Your task to perform on an android device: When is my next meeting? Image 0: 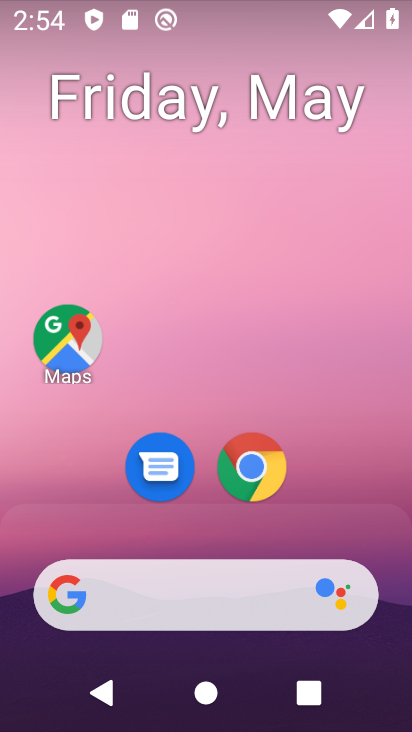
Step 0: drag from (343, 523) to (255, 35)
Your task to perform on an android device: When is my next meeting? Image 1: 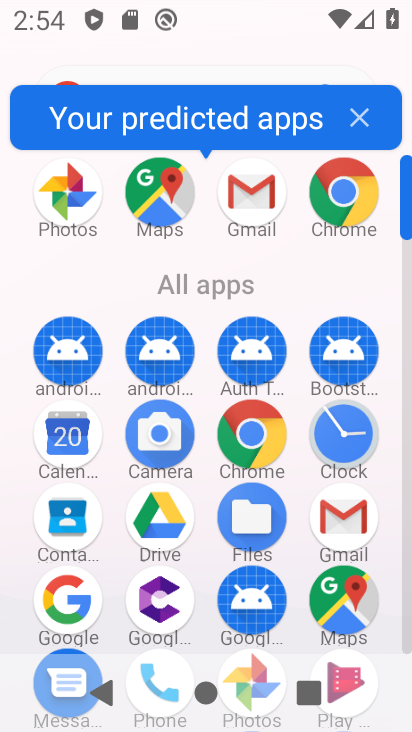
Step 1: click (69, 441)
Your task to perform on an android device: When is my next meeting? Image 2: 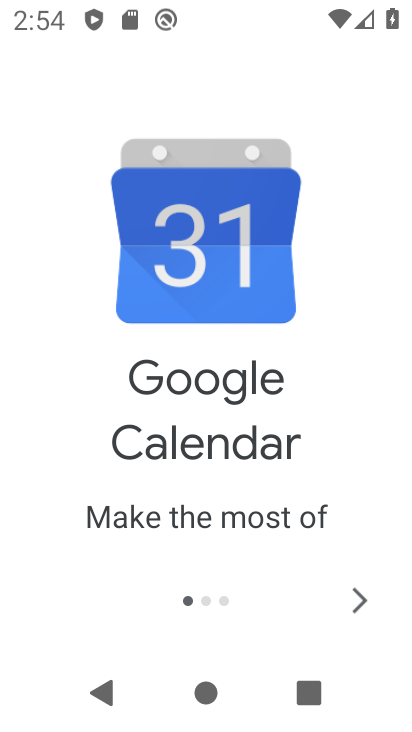
Step 2: click (356, 597)
Your task to perform on an android device: When is my next meeting? Image 3: 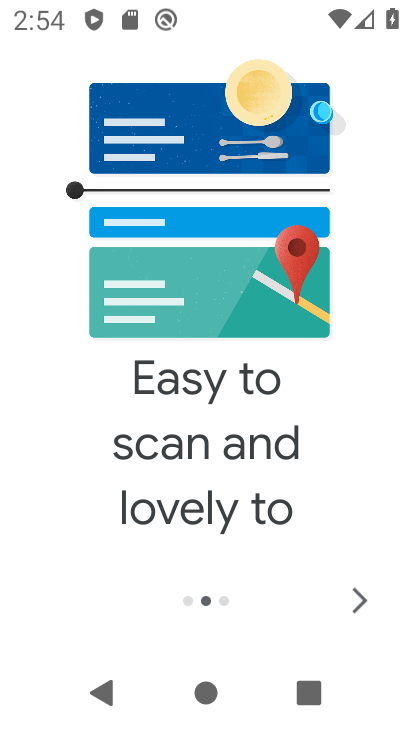
Step 3: click (356, 597)
Your task to perform on an android device: When is my next meeting? Image 4: 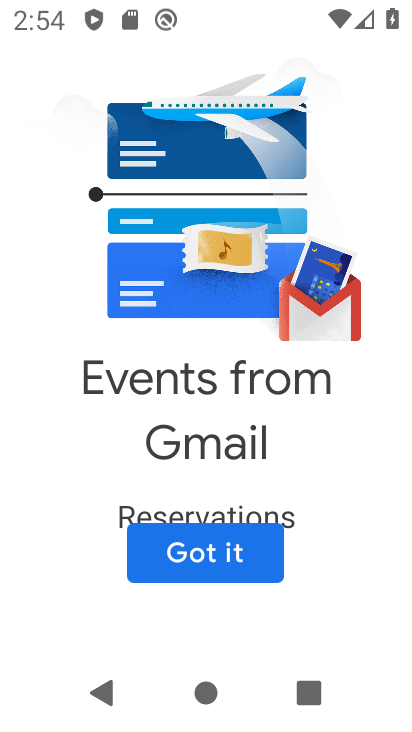
Step 4: click (231, 550)
Your task to perform on an android device: When is my next meeting? Image 5: 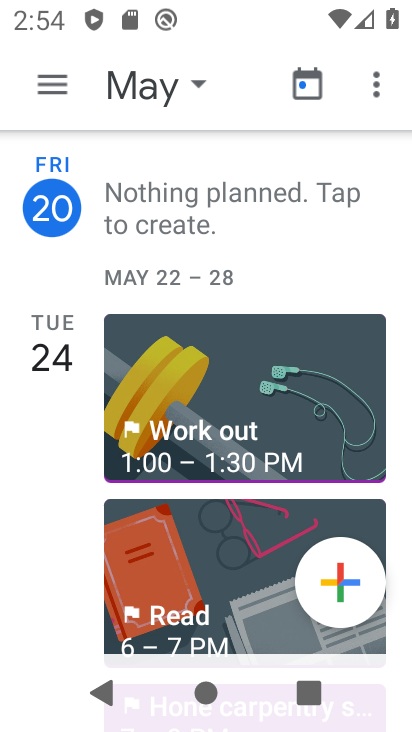
Step 5: click (191, 93)
Your task to perform on an android device: When is my next meeting? Image 6: 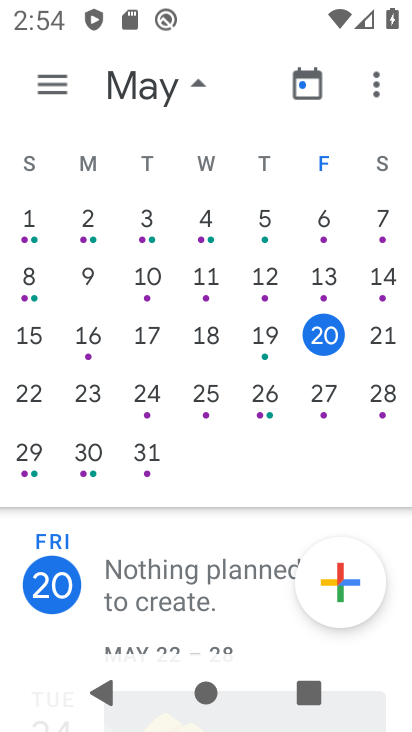
Step 6: task complete